Your task to perform on an android device: toggle location history Image 0: 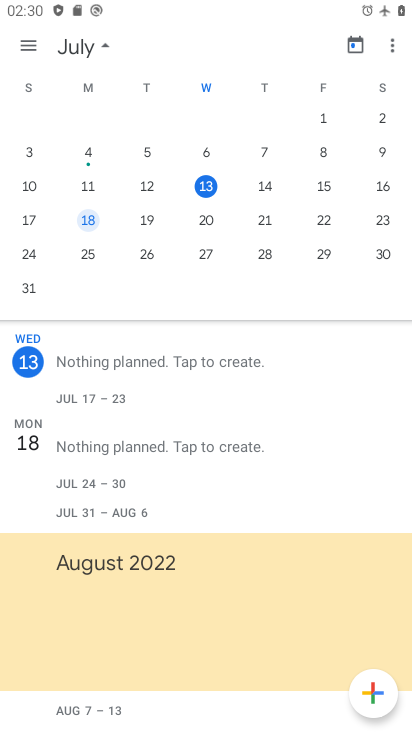
Step 0: press home button
Your task to perform on an android device: toggle location history Image 1: 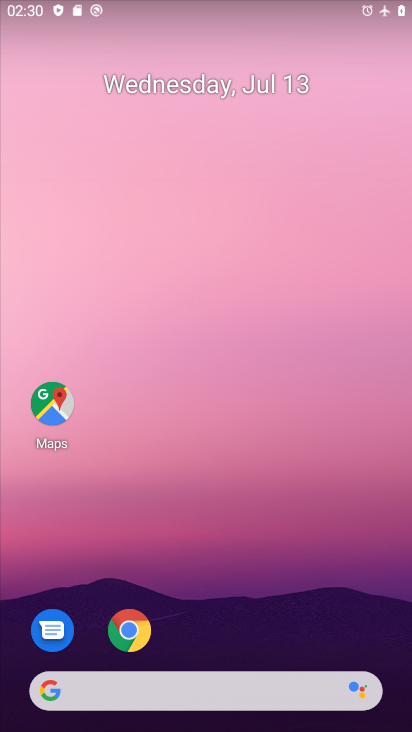
Step 1: drag from (226, 643) to (223, 239)
Your task to perform on an android device: toggle location history Image 2: 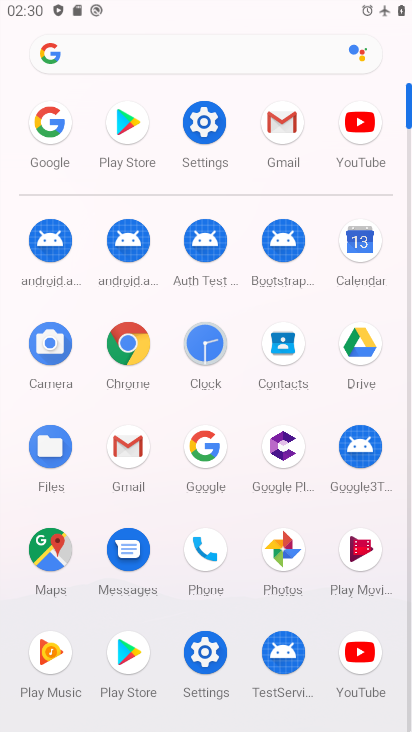
Step 2: click (210, 138)
Your task to perform on an android device: toggle location history Image 3: 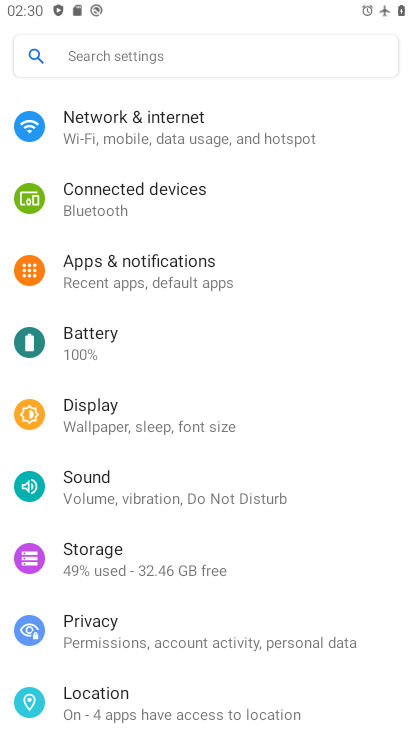
Step 3: click (117, 687)
Your task to perform on an android device: toggle location history Image 4: 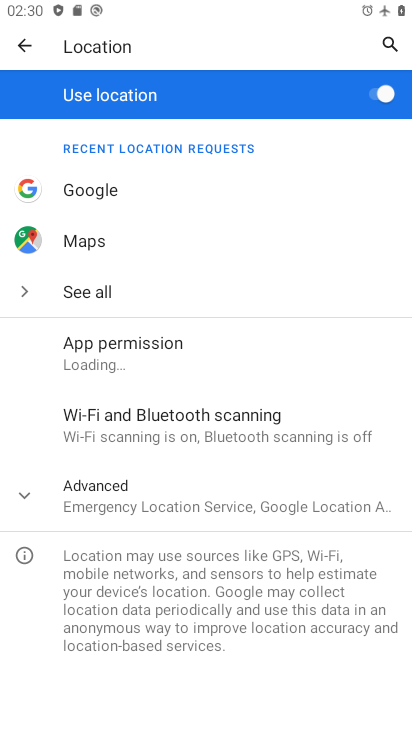
Step 4: click (130, 470)
Your task to perform on an android device: toggle location history Image 5: 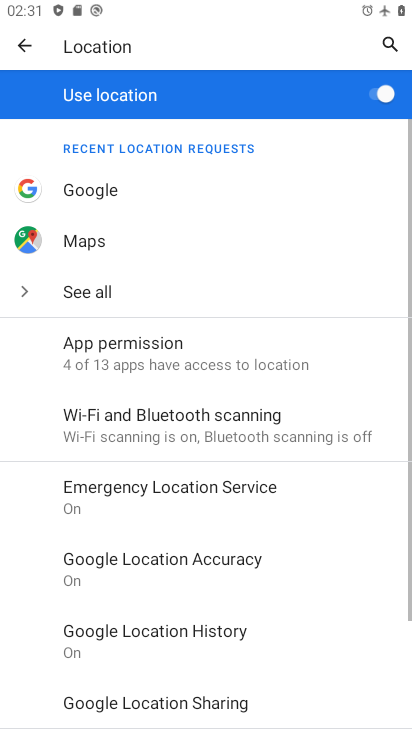
Step 5: click (225, 641)
Your task to perform on an android device: toggle location history Image 6: 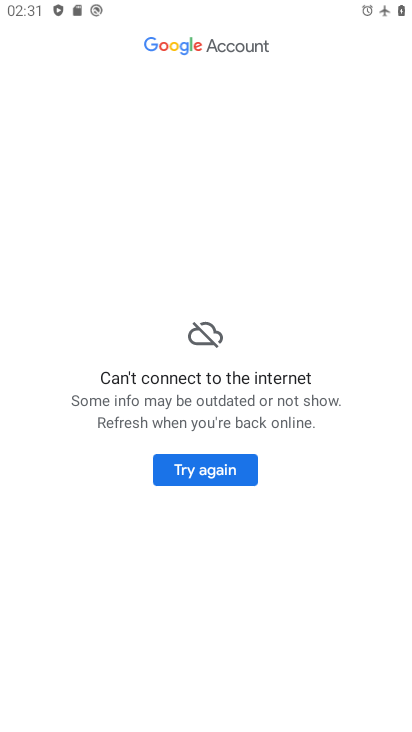
Step 6: task complete